Your task to perform on an android device: add a label to a message in the gmail app Image 0: 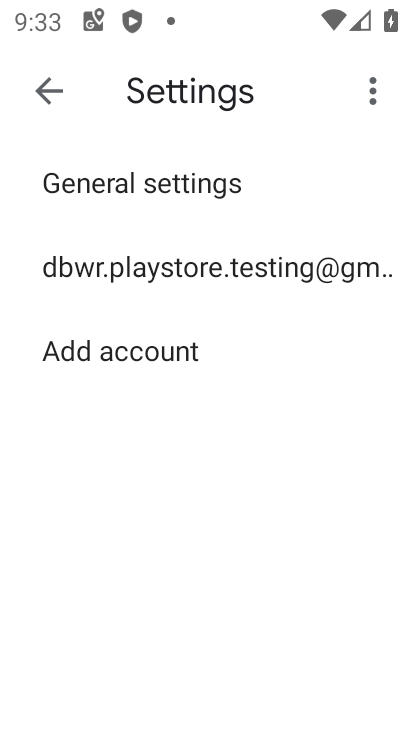
Step 0: press home button
Your task to perform on an android device: add a label to a message in the gmail app Image 1: 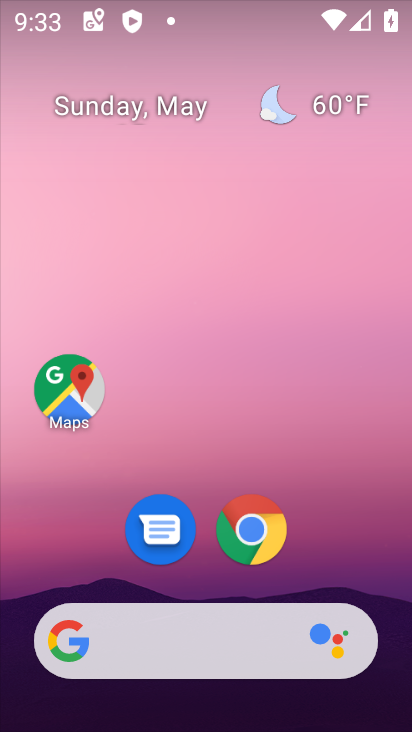
Step 1: drag from (367, 559) to (327, 130)
Your task to perform on an android device: add a label to a message in the gmail app Image 2: 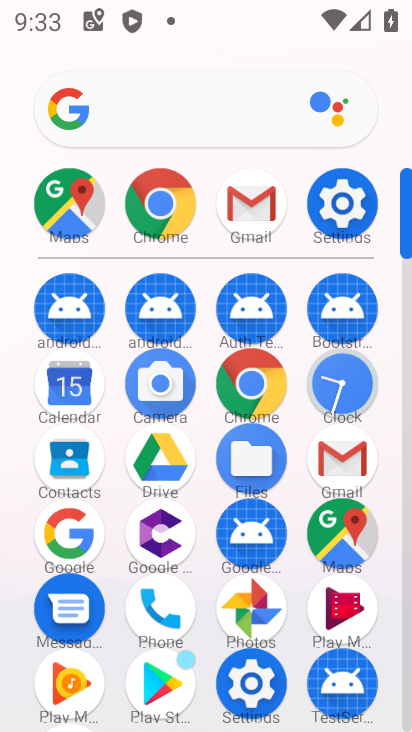
Step 2: click (329, 456)
Your task to perform on an android device: add a label to a message in the gmail app Image 3: 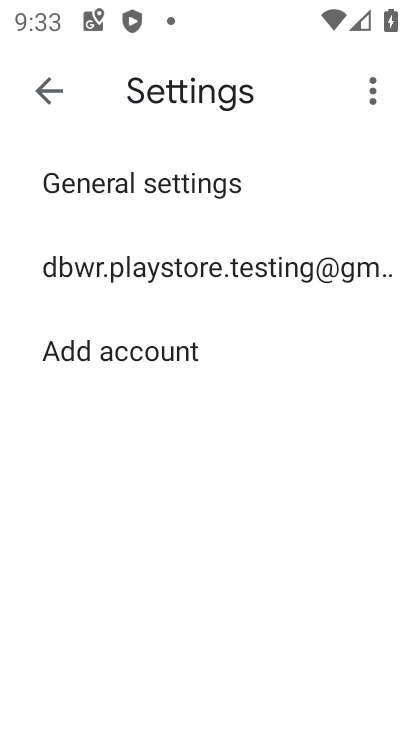
Step 3: click (45, 94)
Your task to perform on an android device: add a label to a message in the gmail app Image 4: 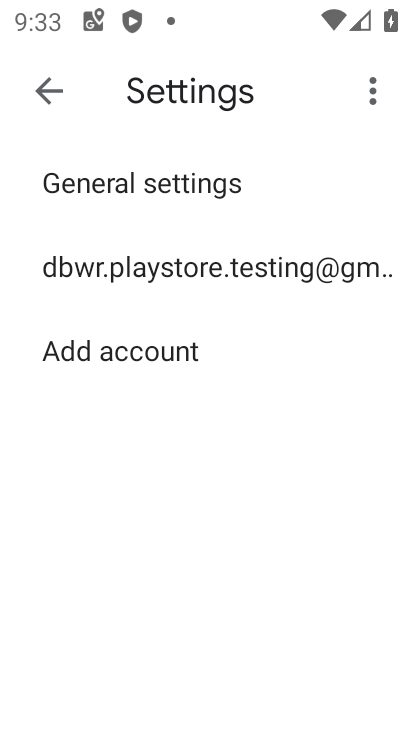
Step 4: click (52, 73)
Your task to perform on an android device: add a label to a message in the gmail app Image 5: 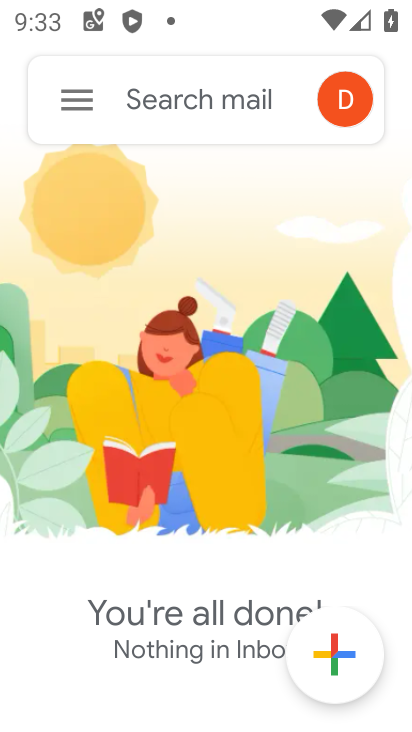
Step 5: click (90, 96)
Your task to perform on an android device: add a label to a message in the gmail app Image 6: 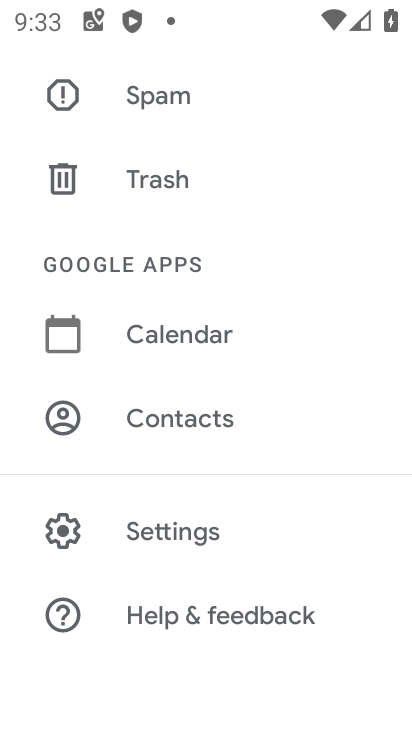
Step 6: drag from (321, 195) to (365, 473)
Your task to perform on an android device: add a label to a message in the gmail app Image 7: 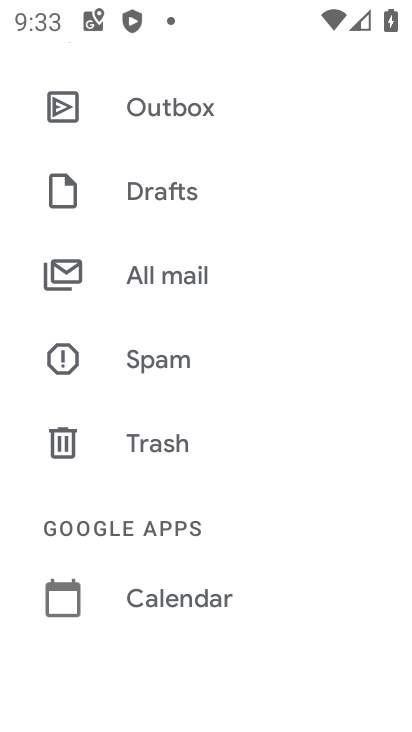
Step 7: drag from (327, 208) to (315, 481)
Your task to perform on an android device: add a label to a message in the gmail app Image 8: 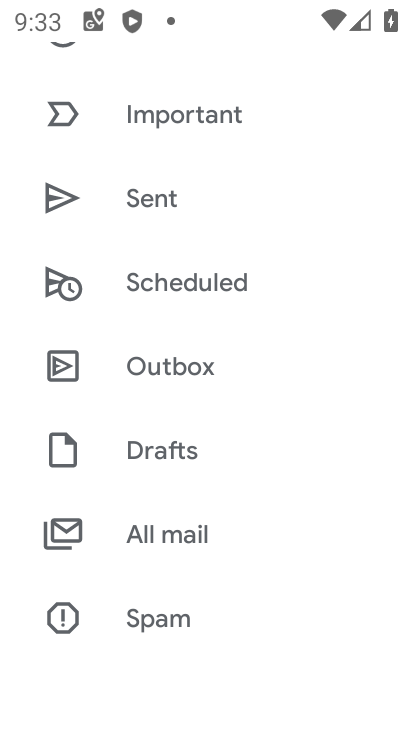
Step 8: drag from (320, 161) to (319, 387)
Your task to perform on an android device: add a label to a message in the gmail app Image 9: 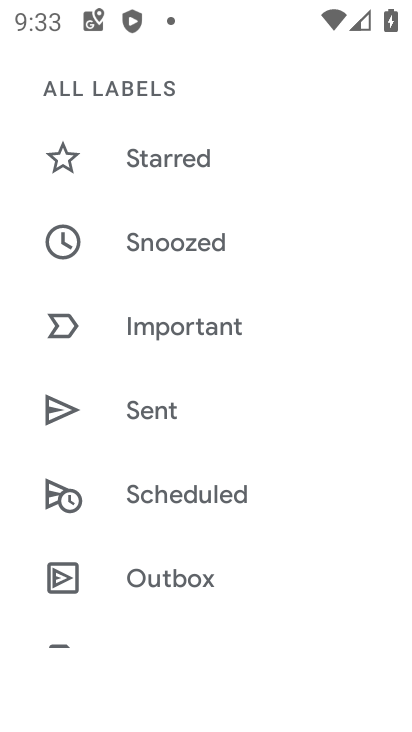
Step 9: drag from (307, 128) to (313, 391)
Your task to perform on an android device: add a label to a message in the gmail app Image 10: 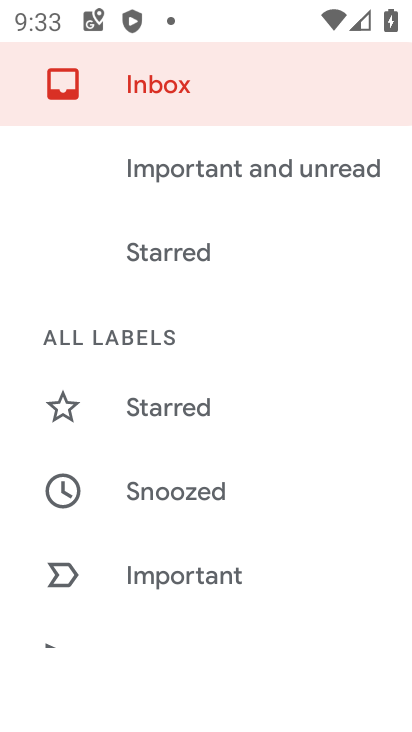
Step 10: click (183, 87)
Your task to perform on an android device: add a label to a message in the gmail app Image 11: 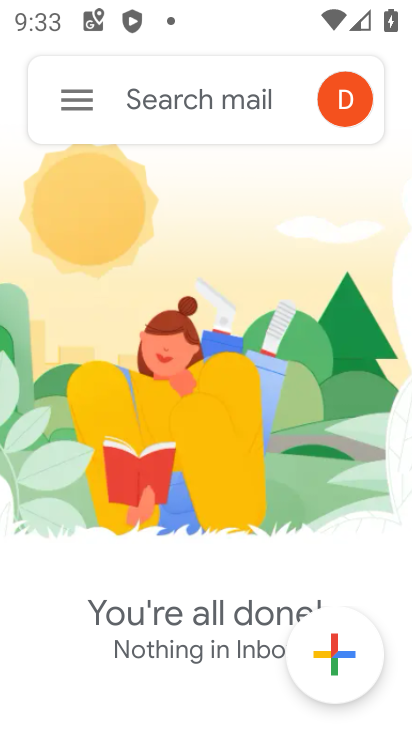
Step 11: task complete